Your task to perform on an android device: Go to display settings Image 0: 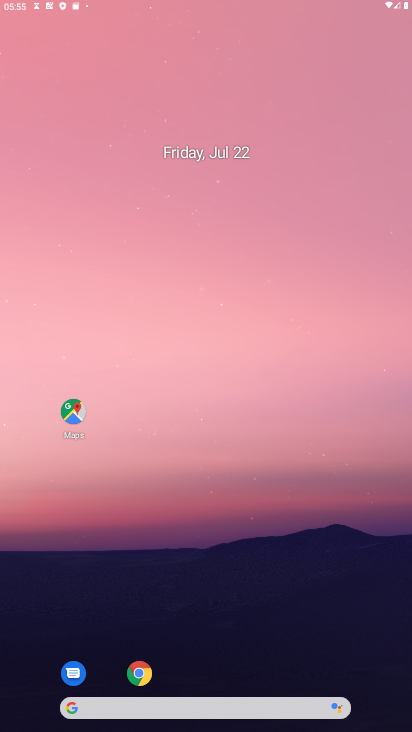
Step 0: press home button
Your task to perform on an android device: Go to display settings Image 1: 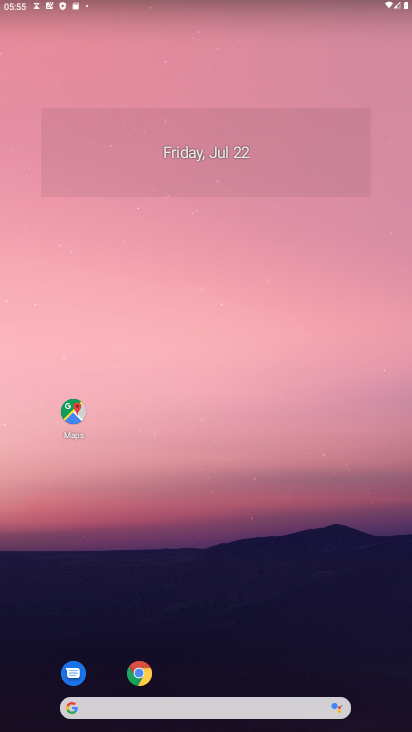
Step 1: drag from (205, 689) to (215, 107)
Your task to perform on an android device: Go to display settings Image 2: 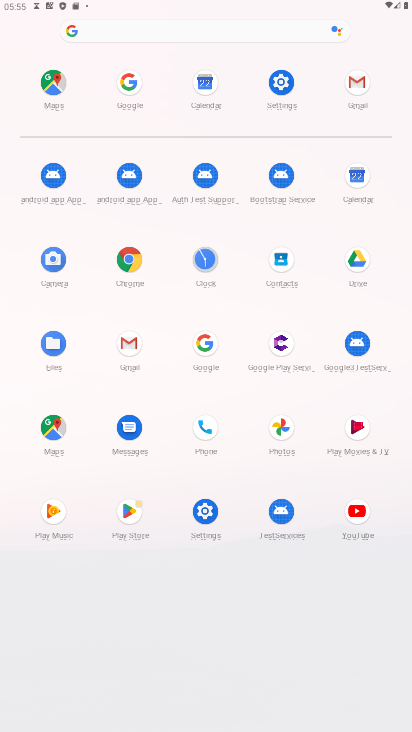
Step 2: click (277, 86)
Your task to perform on an android device: Go to display settings Image 3: 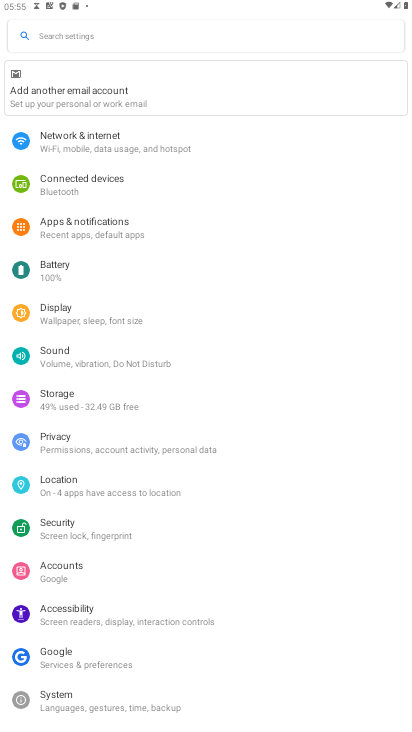
Step 3: click (60, 313)
Your task to perform on an android device: Go to display settings Image 4: 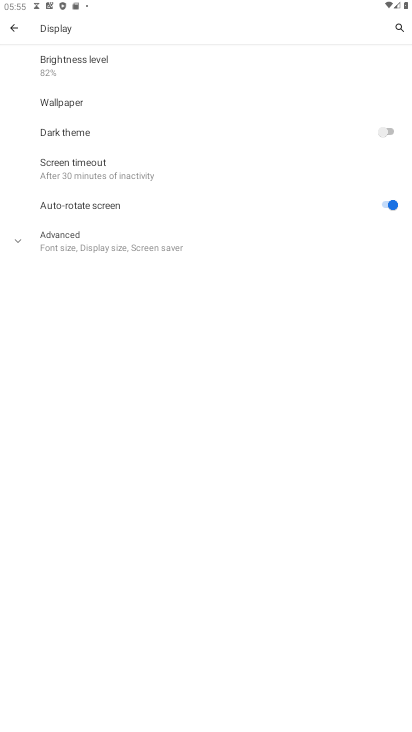
Step 4: task complete